Your task to perform on an android device: set default search engine in the chrome app Image 0: 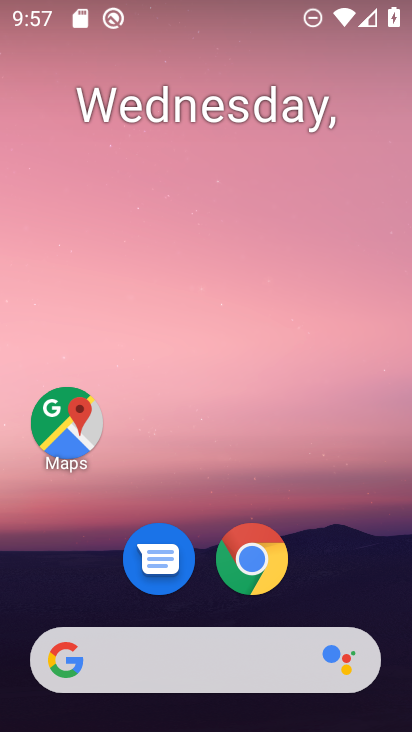
Step 0: drag from (394, 587) to (394, 261)
Your task to perform on an android device: set default search engine in the chrome app Image 1: 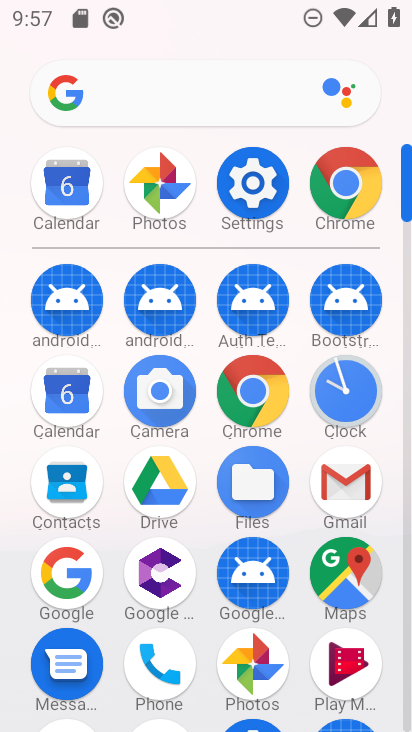
Step 1: click (270, 401)
Your task to perform on an android device: set default search engine in the chrome app Image 2: 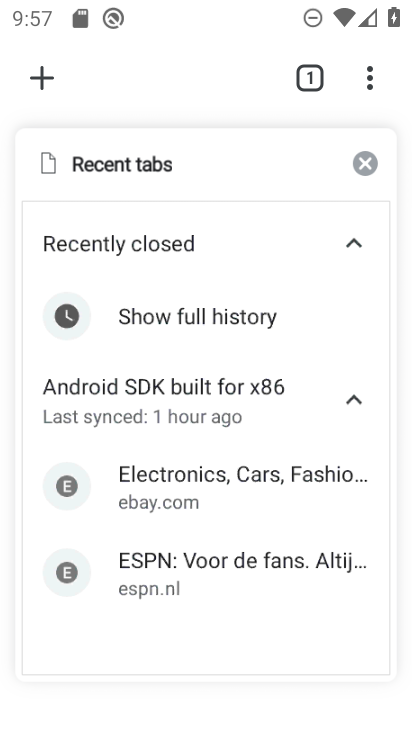
Step 2: click (251, 418)
Your task to perform on an android device: set default search engine in the chrome app Image 3: 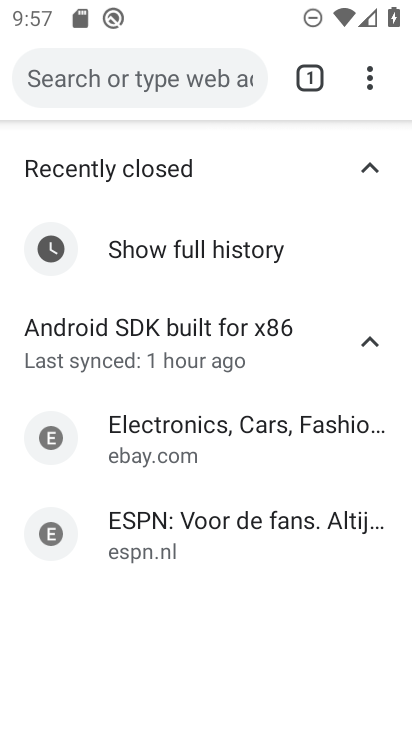
Step 3: click (370, 90)
Your task to perform on an android device: set default search engine in the chrome app Image 4: 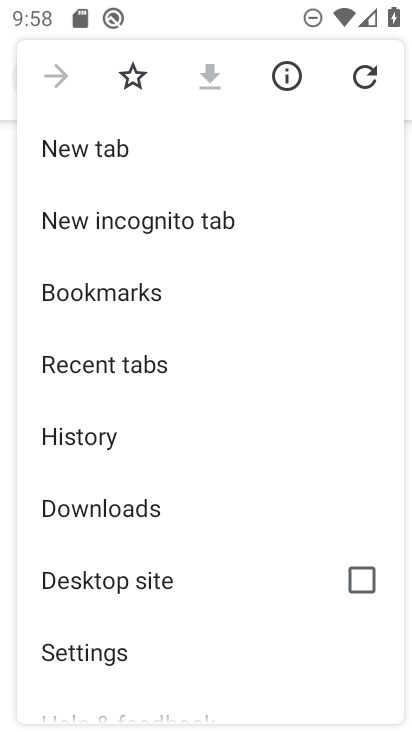
Step 4: click (112, 654)
Your task to perform on an android device: set default search engine in the chrome app Image 5: 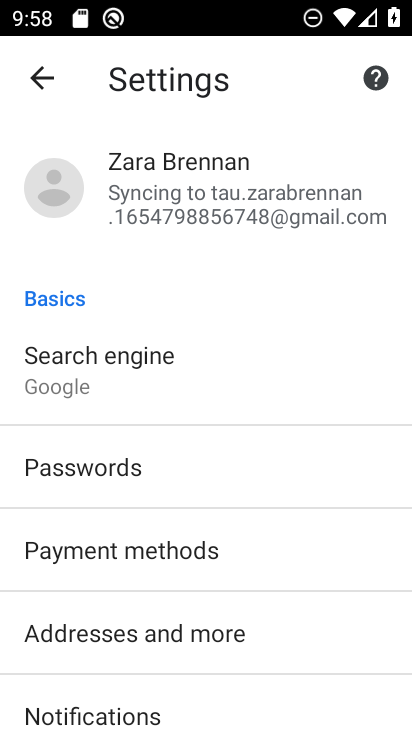
Step 5: click (204, 356)
Your task to perform on an android device: set default search engine in the chrome app Image 6: 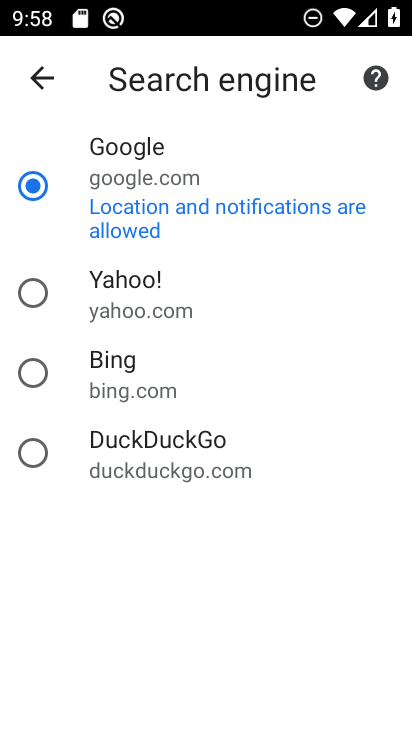
Step 6: click (38, 378)
Your task to perform on an android device: set default search engine in the chrome app Image 7: 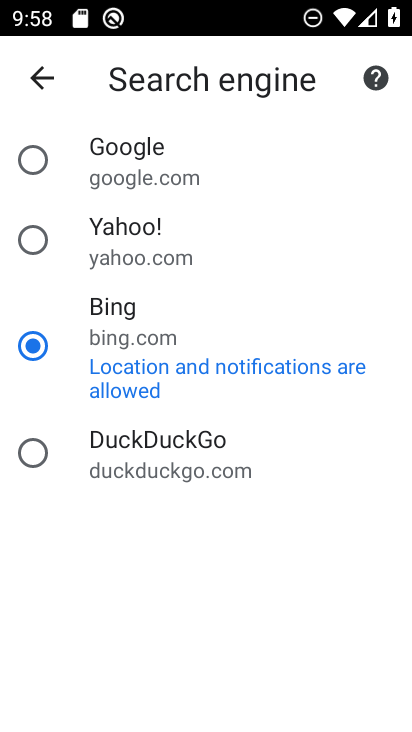
Step 7: task complete